Your task to perform on an android device: Open calendar and show me the third week of next month Image 0: 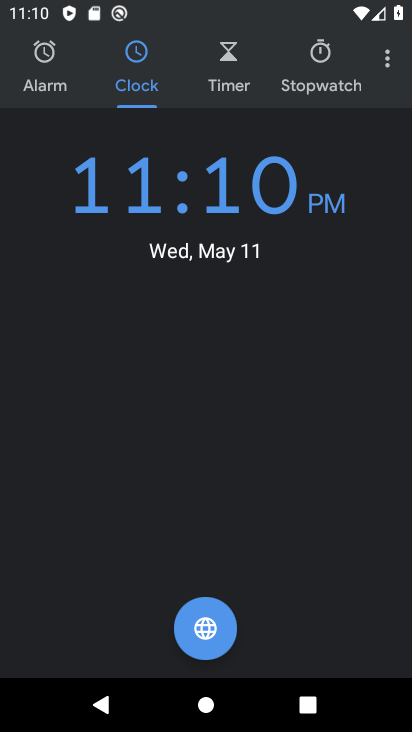
Step 0: press home button
Your task to perform on an android device: Open calendar and show me the third week of next month Image 1: 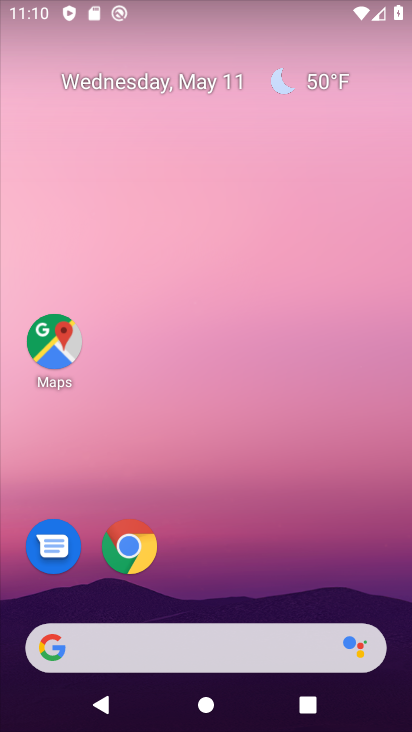
Step 1: drag from (136, 639) to (156, 109)
Your task to perform on an android device: Open calendar and show me the third week of next month Image 2: 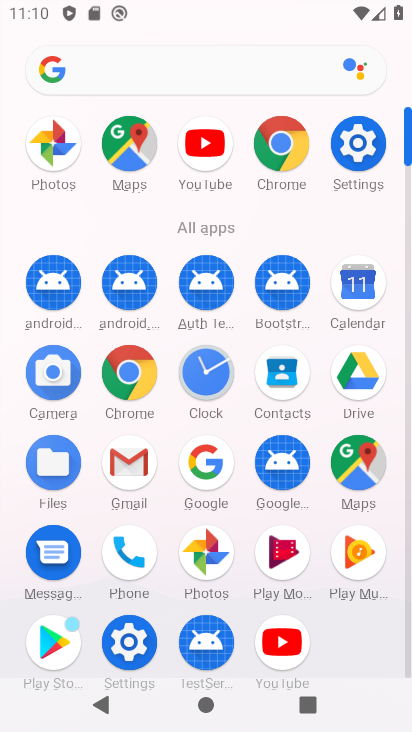
Step 2: click (355, 295)
Your task to perform on an android device: Open calendar and show me the third week of next month Image 3: 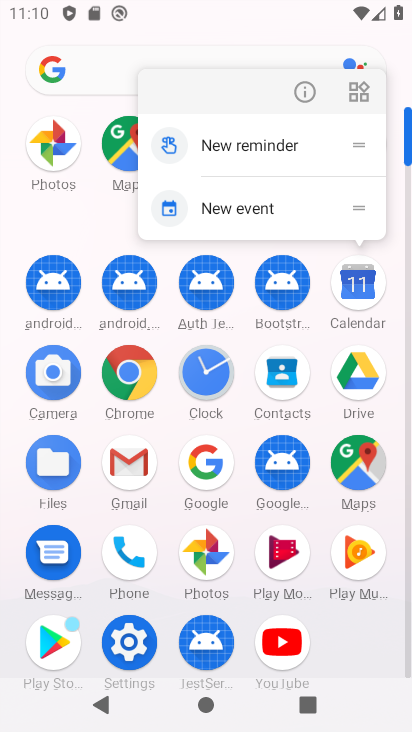
Step 3: click (363, 284)
Your task to perform on an android device: Open calendar and show me the third week of next month Image 4: 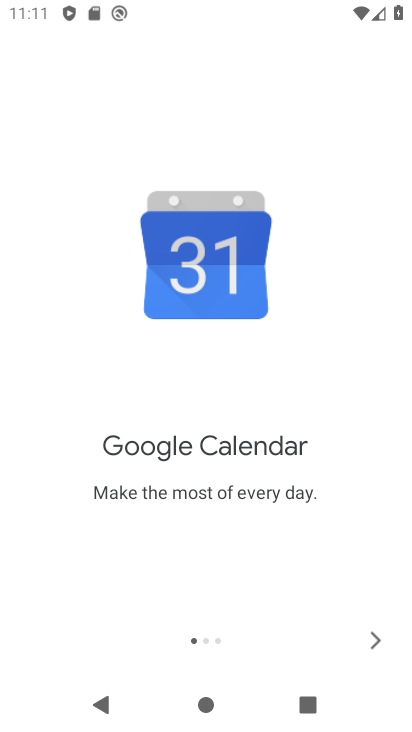
Step 4: click (368, 644)
Your task to perform on an android device: Open calendar and show me the third week of next month Image 5: 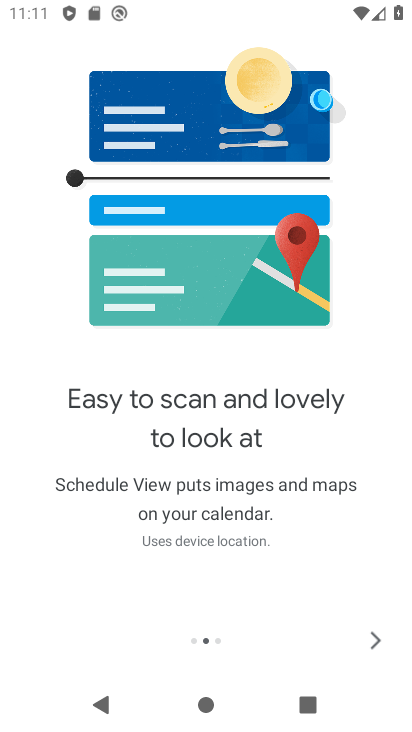
Step 5: click (368, 644)
Your task to perform on an android device: Open calendar and show me the third week of next month Image 6: 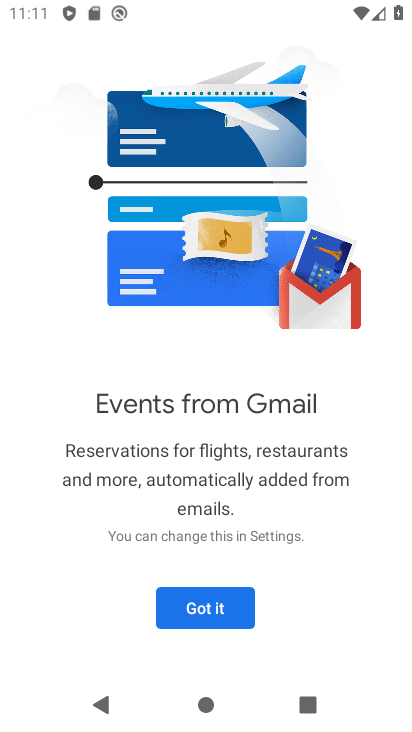
Step 6: click (235, 617)
Your task to perform on an android device: Open calendar and show me the third week of next month Image 7: 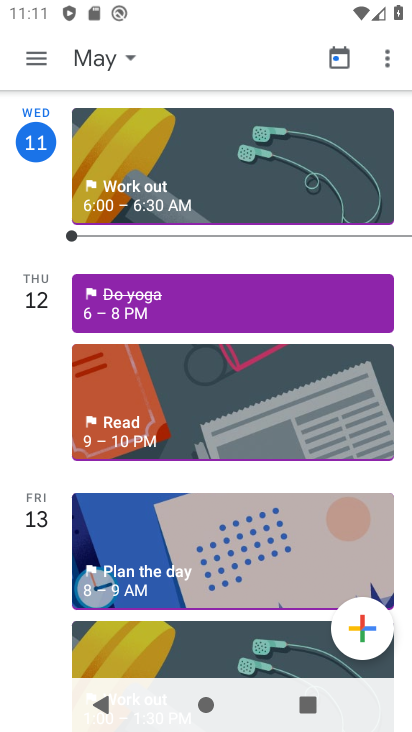
Step 7: click (41, 66)
Your task to perform on an android device: Open calendar and show me the third week of next month Image 8: 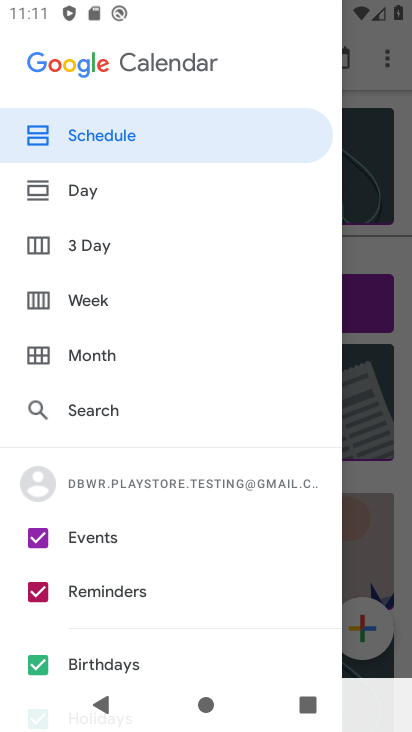
Step 8: click (100, 357)
Your task to perform on an android device: Open calendar and show me the third week of next month Image 9: 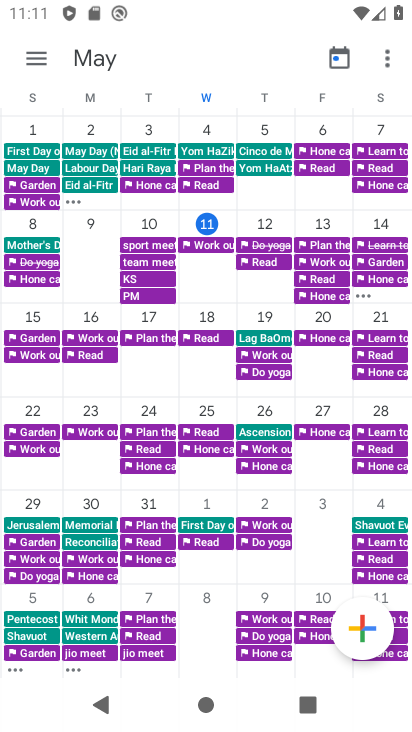
Step 9: task complete